Your task to perform on an android device: change your default location settings in chrome Image 0: 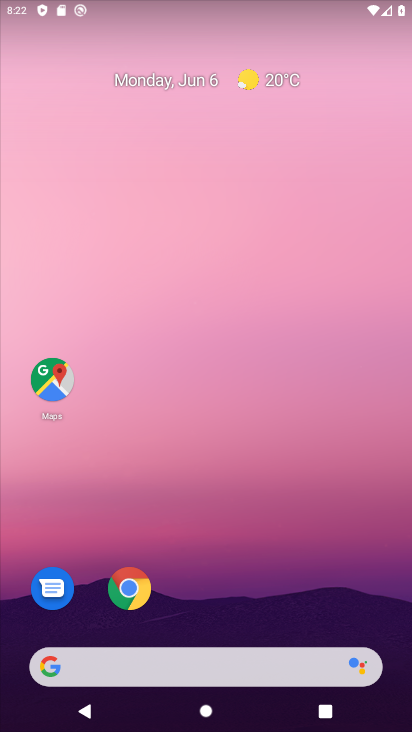
Step 0: drag from (314, 607) to (383, 21)
Your task to perform on an android device: change your default location settings in chrome Image 1: 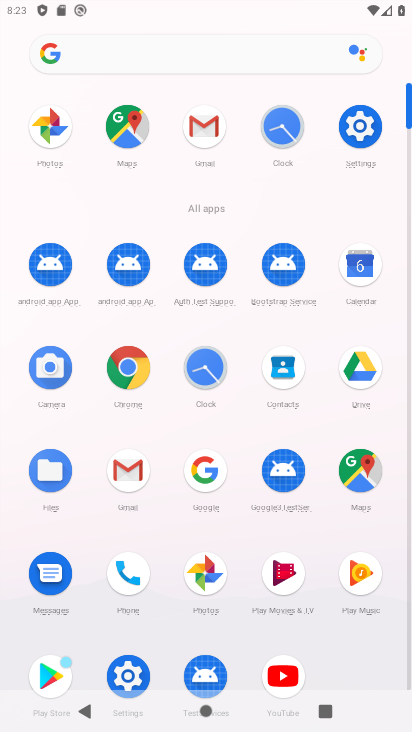
Step 1: click (129, 368)
Your task to perform on an android device: change your default location settings in chrome Image 2: 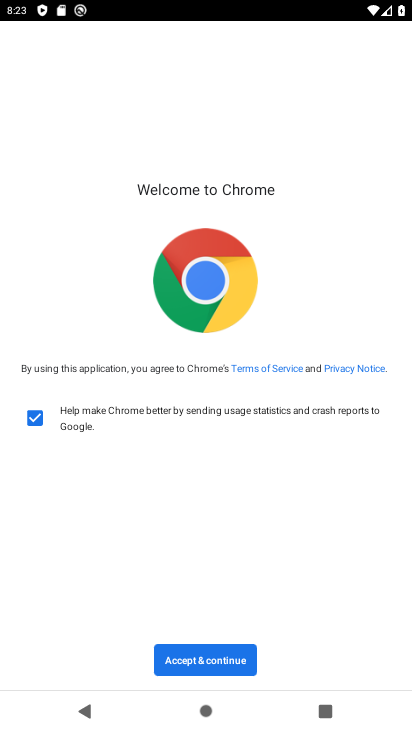
Step 2: click (218, 661)
Your task to perform on an android device: change your default location settings in chrome Image 3: 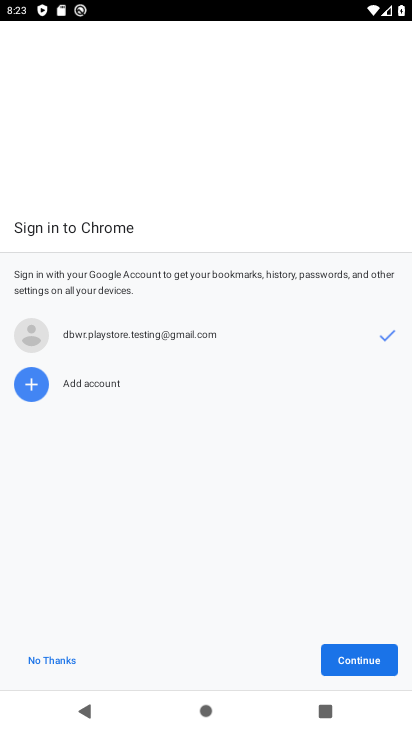
Step 3: click (60, 669)
Your task to perform on an android device: change your default location settings in chrome Image 4: 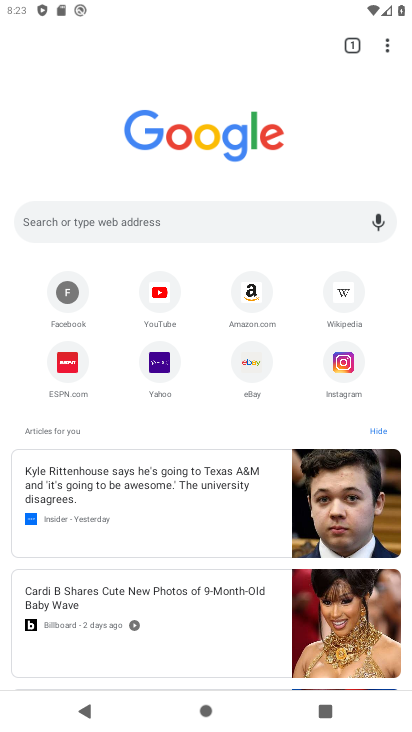
Step 4: drag from (389, 57) to (213, 381)
Your task to perform on an android device: change your default location settings in chrome Image 5: 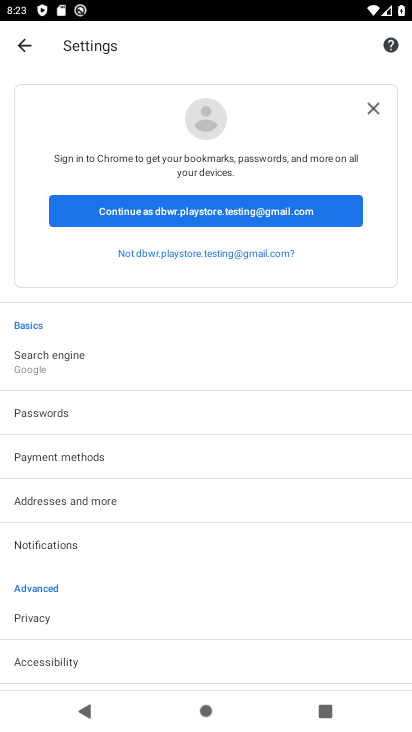
Step 5: drag from (119, 598) to (176, 156)
Your task to perform on an android device: change your default location settings in chrome Image 6: 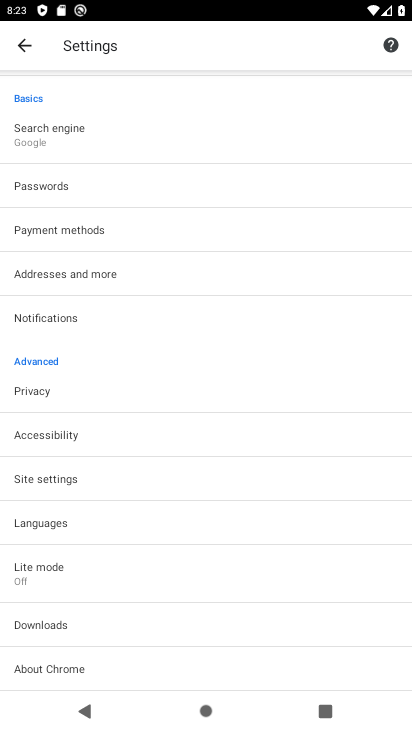
Step 6: drag from (152, 639) to (252, 177)
Your task to perform on an android device: change your default location settings in chrome Image 7: 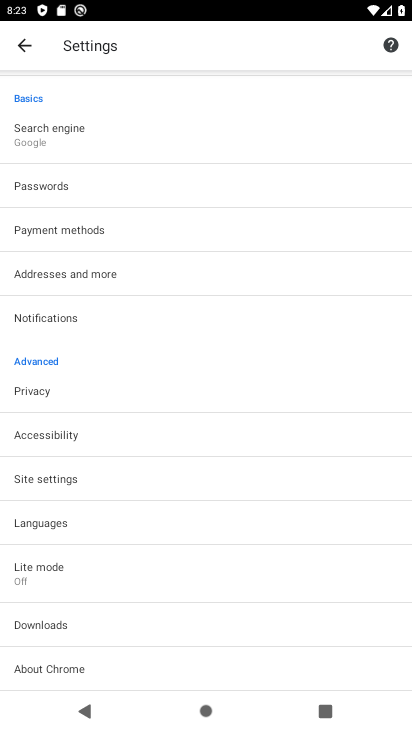
Step 7: drag from (260, 203) to (311, 582)
Your task to perform on an android device: change your default location settings in chrome Image 8: 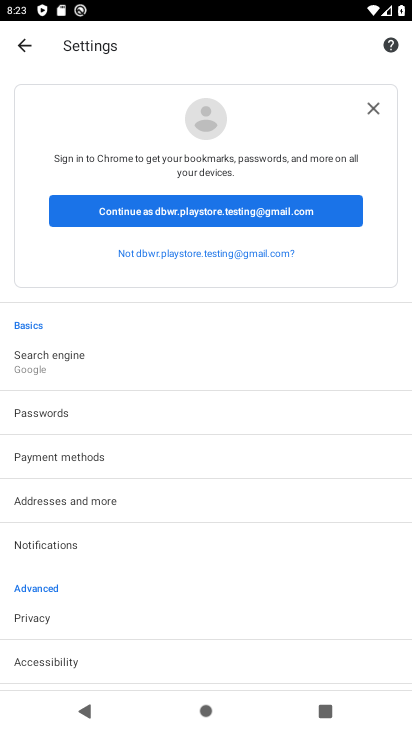
Step 8: drag from (179, 641) to (237, 253)
Your task to perform on an android device: change your default location settings in chrome Image 9: 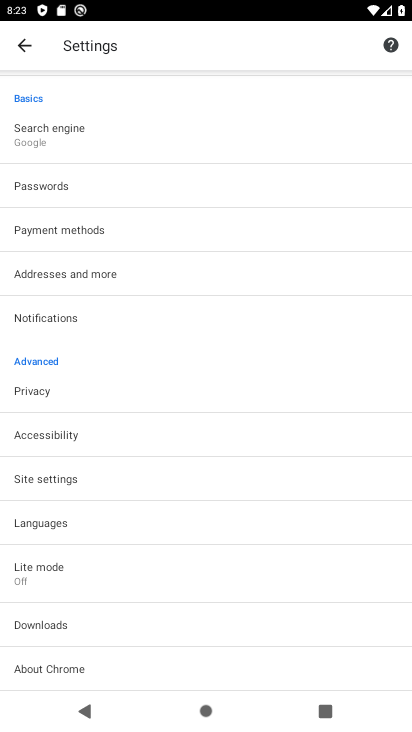
Step 9: click (92, 477)
Your task to perform on an android device: change your default location settings in chrome Image 10: 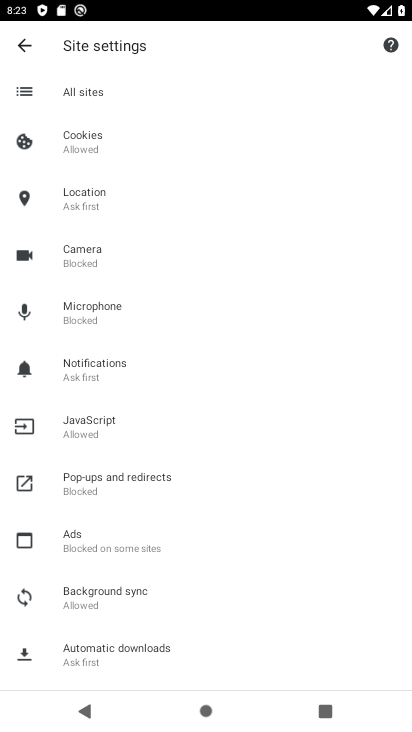
Step 10: click (83, 202)
Your task to perform on an android device: change your default location settings in chrome Image 11: 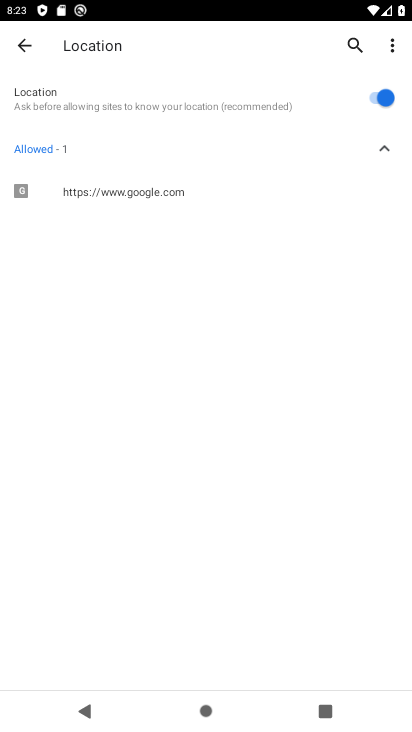
Step 11: click (379, 92)
Your task to perform on an android device: change your default location settings in chrome Image 12: 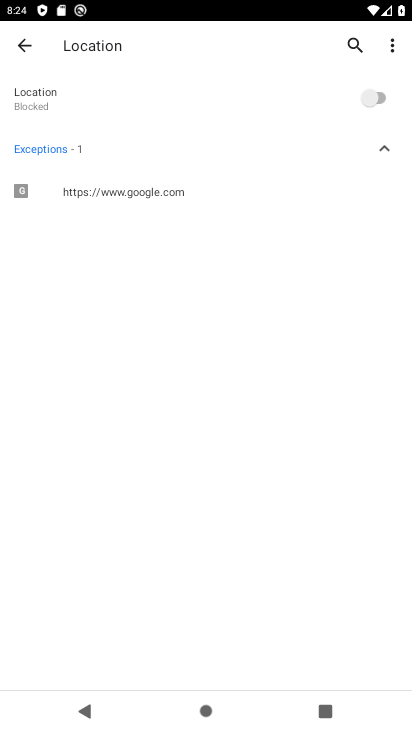
Step 12: task complete